Your task to perform on an android device: toggle data saver in the chrome app Image 0: 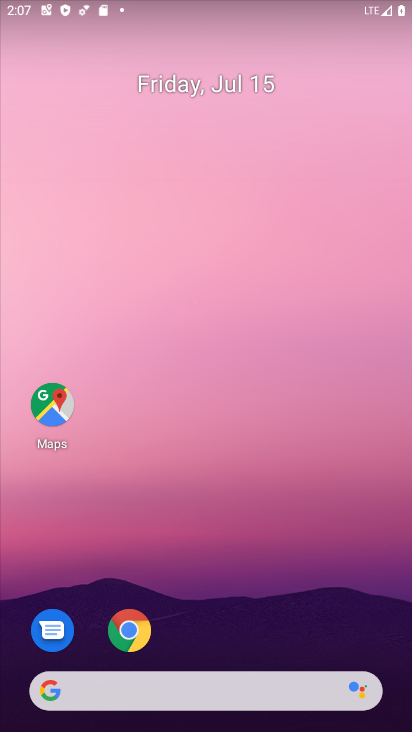
Step 0: press home button
Your task to perform on an android device: toggle data saver in the chrome app Image 1: 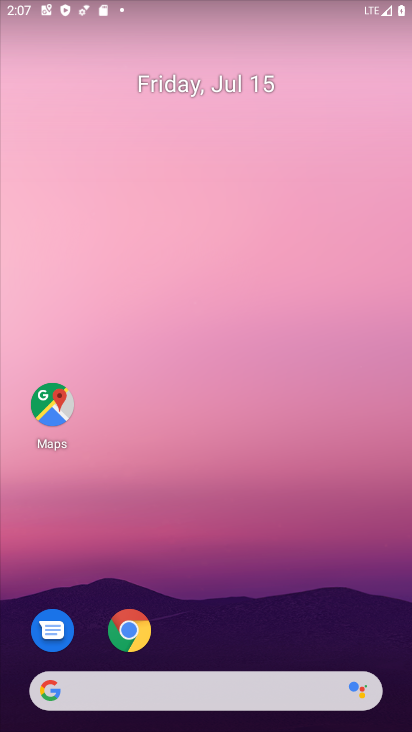
Step 1: click (132, 631)
Your task to perform on an android device: toggle data saver in the chrome app Image 2: 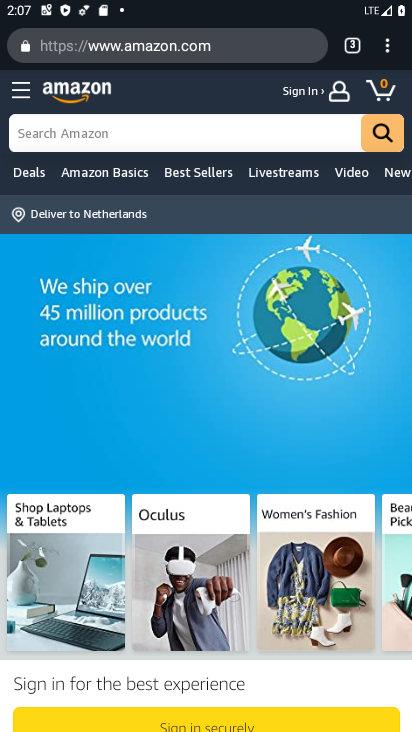
Step 2: drag from (380, 42) to (211, 542)
Your task to perform on an android device: toggle data saver in the chrome app Image 3: 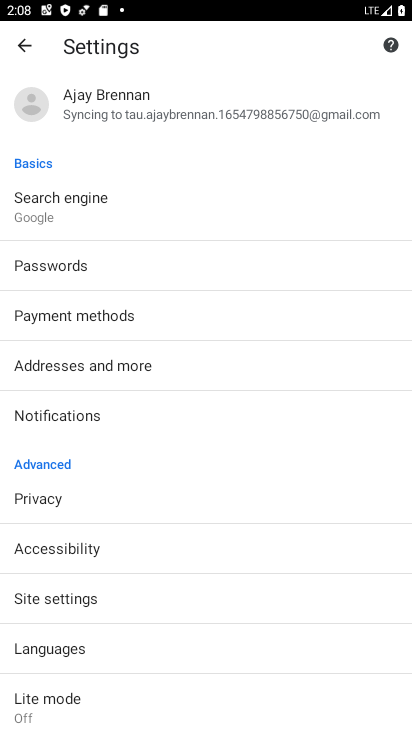
Step 3: click (50, 702)
Your task to perform on an android device: toggle data saver in the chrome app Image 4: 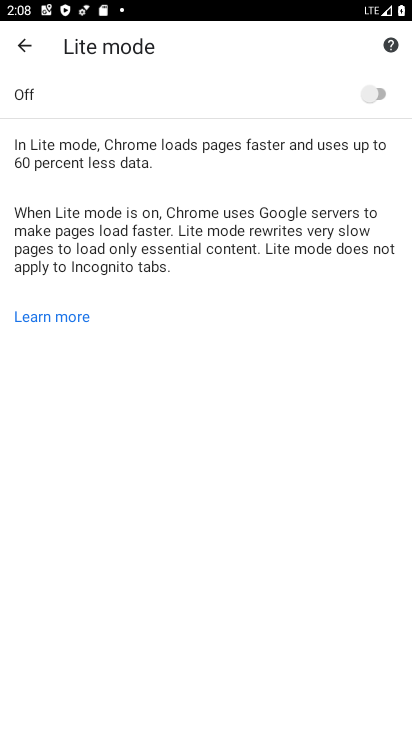
Step 4: click (376, 92)
Your task to perform on an android device: toggle data saver in the chrome app Image 5: 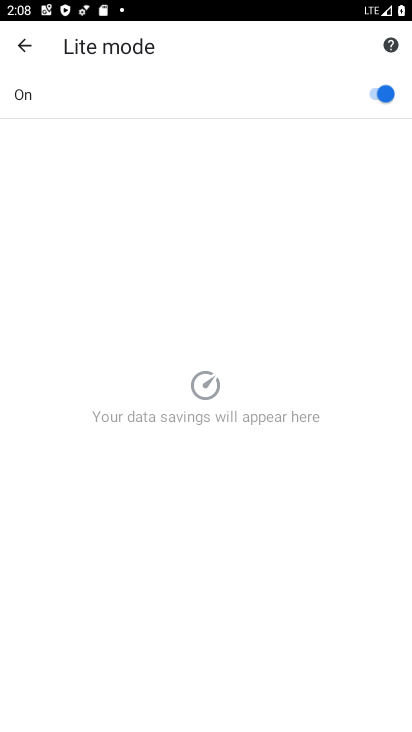
Step 5: task complete